Your task to perform on an android device: turn off picture-in-picture Image 0: 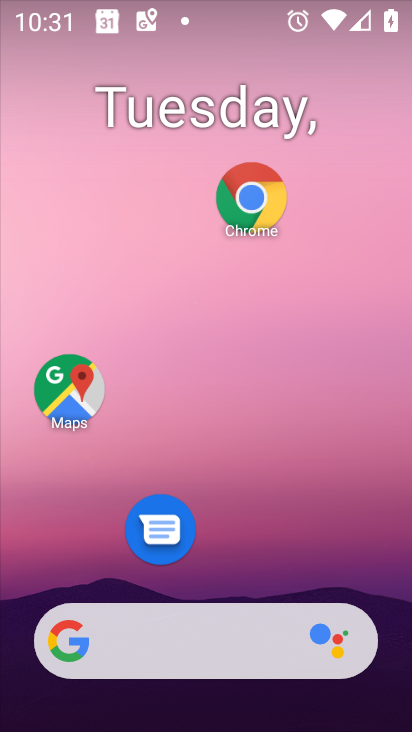
Step 0: drag from (324, 565) to (343, 26)
Your task to perform on an android device: turn off picture-in-picture Image 1: 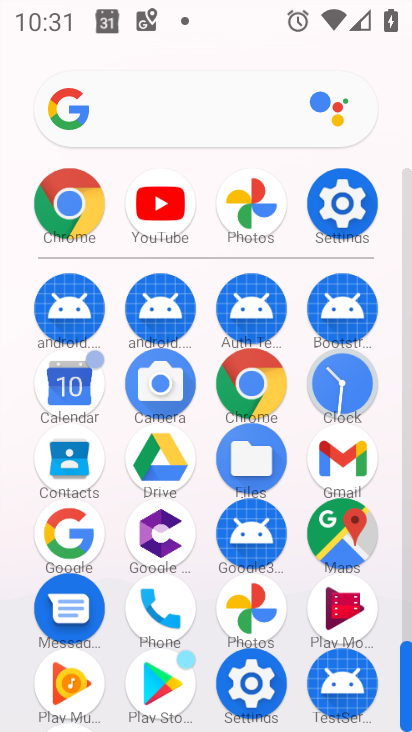
Step 1: click (329, 198)
Your task to perform on an android device: turn off picture-in-picture Image 2: 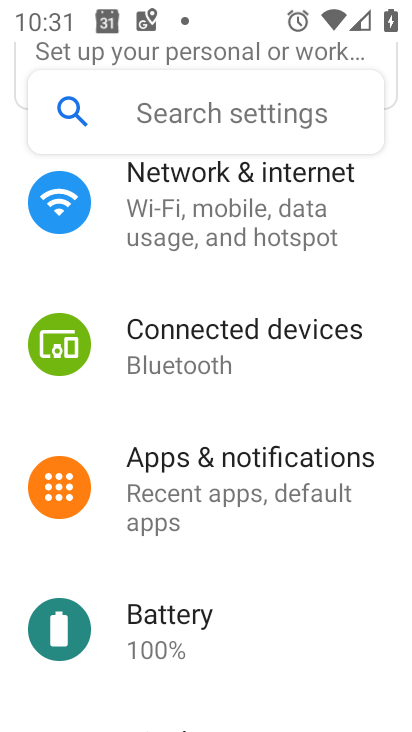
Step 2: click (289, 474)
Your task to perform on an android device: turn off picture-in-picture Image 3: 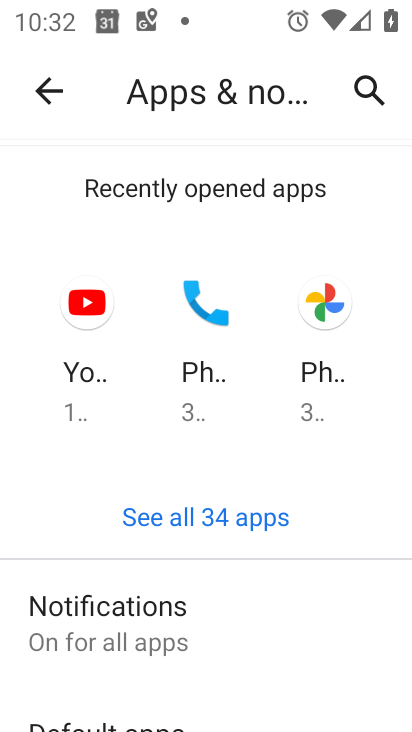
Step 3: drag from (236, 630) to (299, 292)
Your task to perform on an android device: turn off picture-in-picture Image 4: 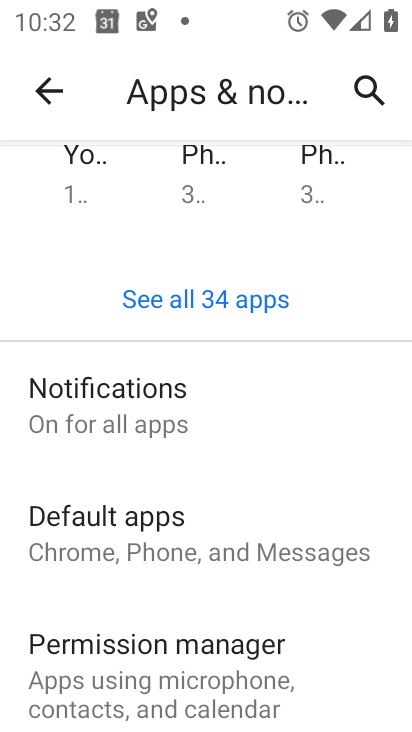
Step 4: drag from (242, 542) to (285, 269)
Your task to perform on an android device: turn off picture-in-picture Image 5: 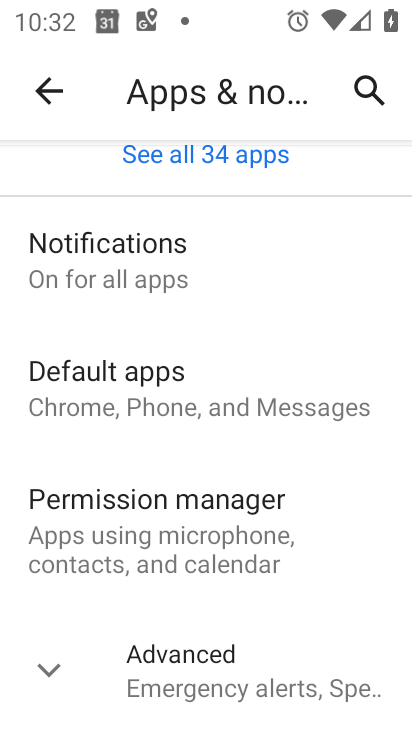
Step 5: click (225, 646)
Your task to perform on an android device: turn off picture-in-picture Image 6: 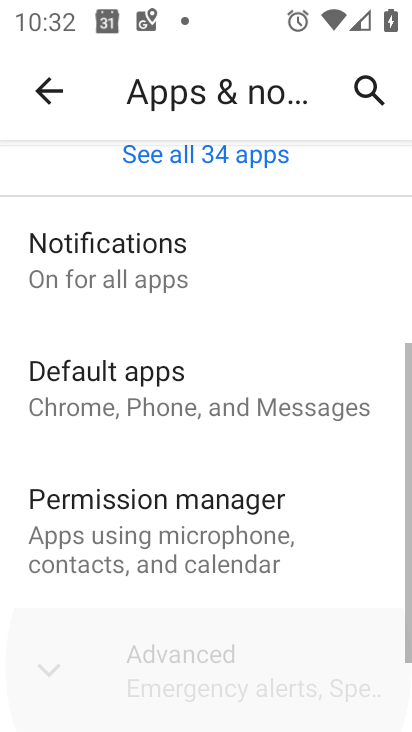
Step 6: drag from (225, 646) to (270, 186)
Your task to perform on an android device: turn off picture-in-picture Image 7: 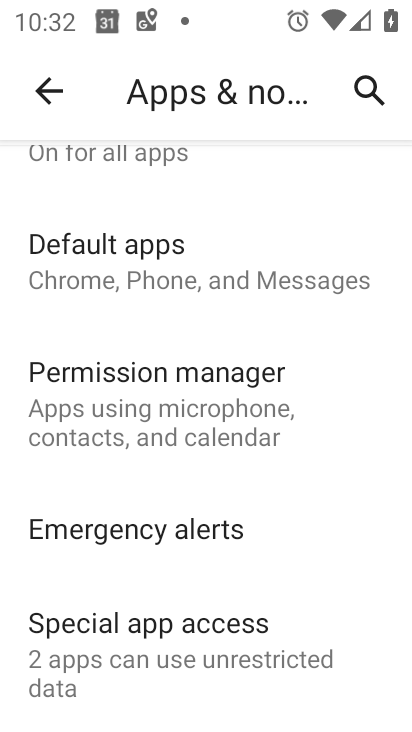
Step 7: click (235, 611)
Your task to perform on an android device: turn off picture-in-picture Image 8: 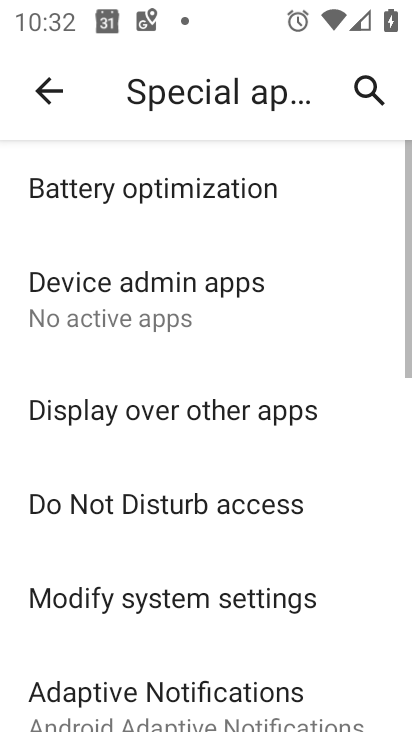
Step 8: drag from (235, 611) to (254, 414)
Your task to perform on an android device: turn off picture-in-picture Image 9: 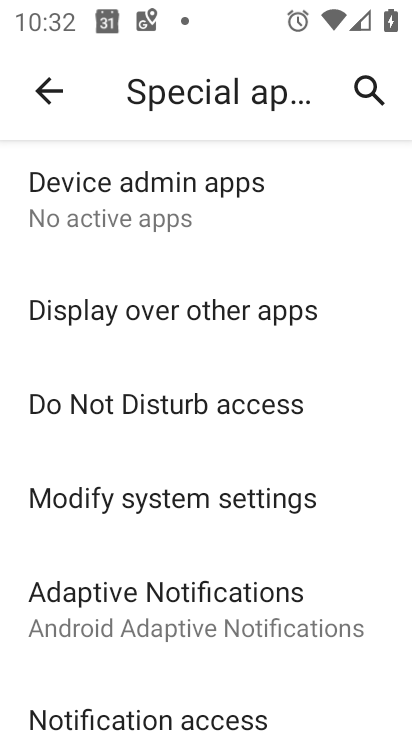
Step 9: drag from (253, 623) to (273, 95)
Your task to perform on an android device: turn off picture-in-picture Image 10: 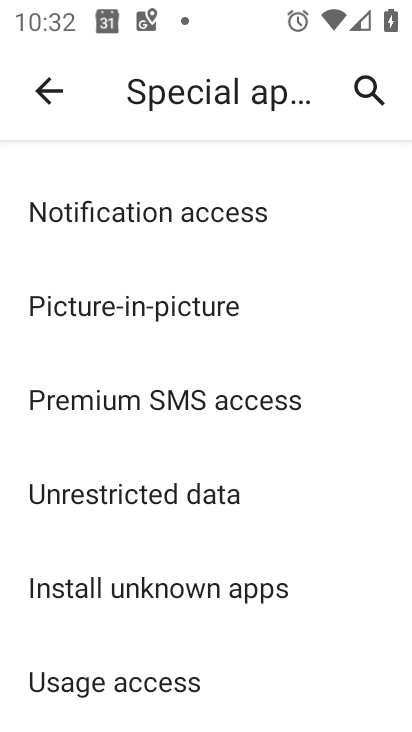
Step 10: drag from (217, 653) to (244, 441)
Your task to perform on an android device: turn off picture-in-picture Image 11: 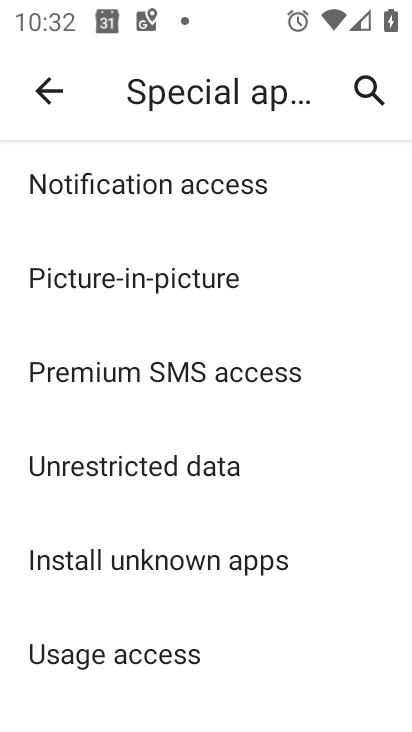
Step 11: click (264, 292)
Your task to perform on an android device: turn off picture-in-picture Image 12: 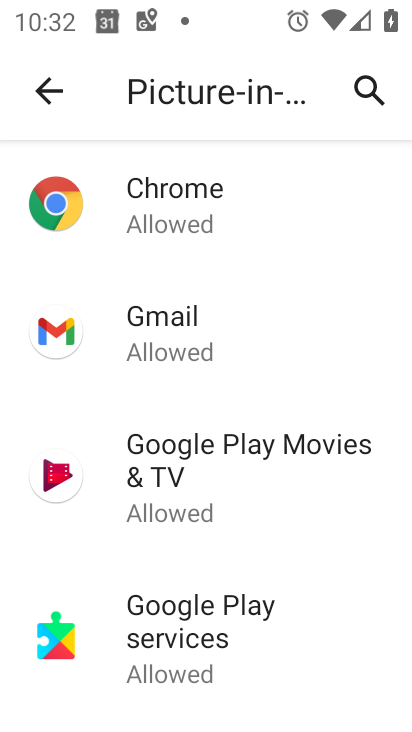
Step 12: click (287, 315)
Your task to perform on an android device: turn off picture-in-picture Image 13: 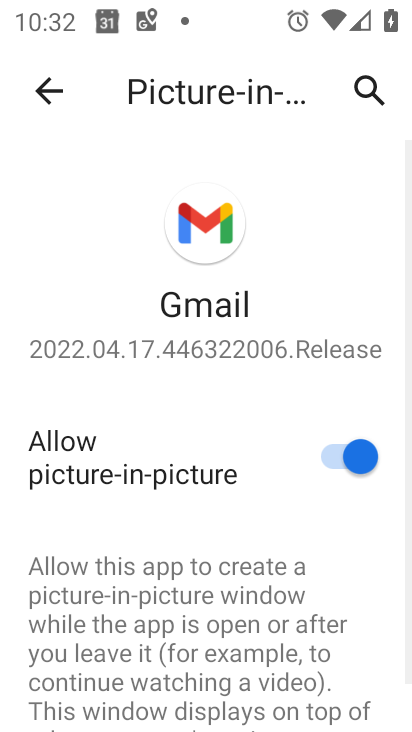
Step 13: click (332, 457)
Your task to perform on an android device: turn off picture-in-picture Image 14: 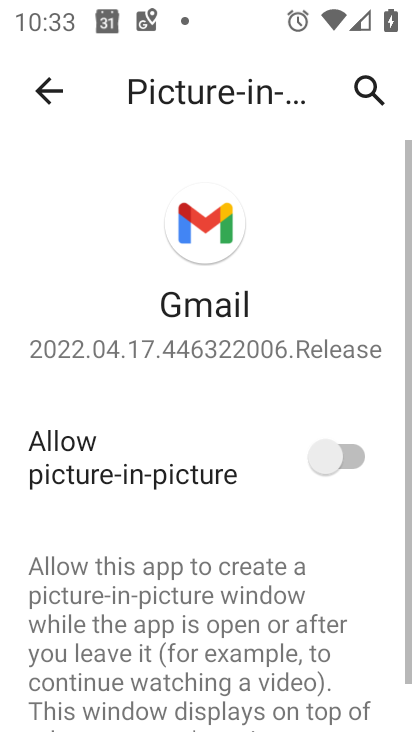
Step 14: task complete